Your task to perform on an android device: Open the phone app and click the voicemail tab. Image 0: 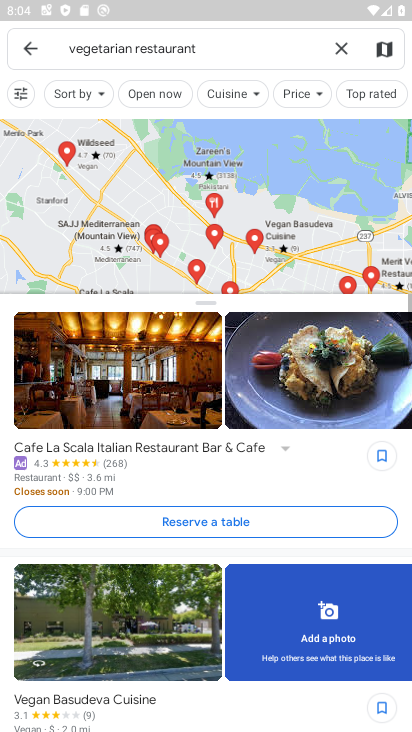
Step 0: press home button
Your task to perform on an android device: Open the phone app and click the voicemail tab. Image 1: 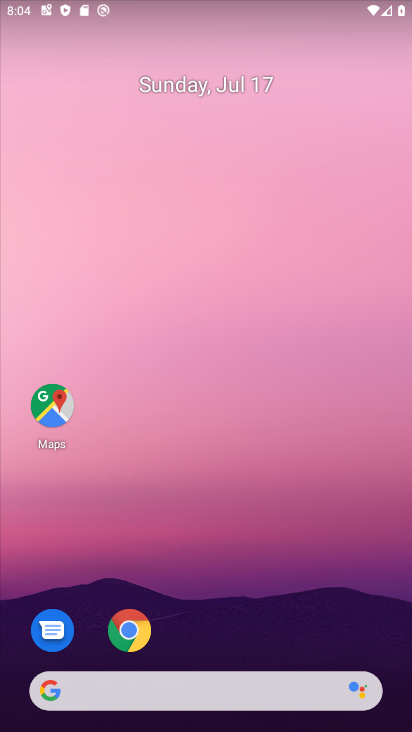
Step 1: drag from (219, 695) to (204, 3)
Your task to perform on an android device: Open the phone app and click the voicemail tab. Image 2: 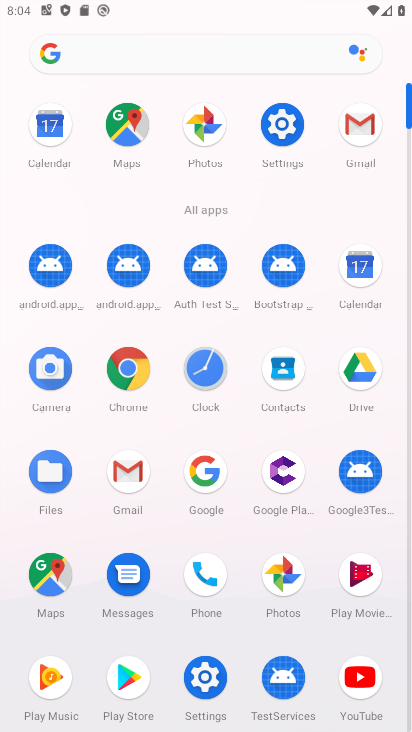
Step 2: click (185, 564)
Your task to perform on an android device: Open the phone app and click the voicemail tab. Image 3: 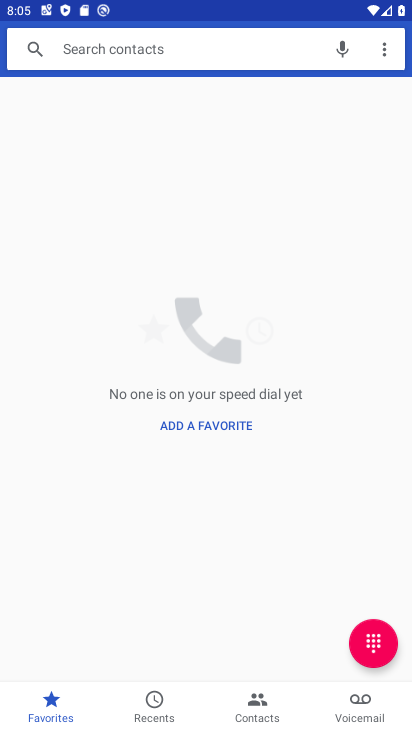
Step 3: click (362, 689)
Your task to perform on an android device: Open the phone app and click the voicemail tab. Image 4: 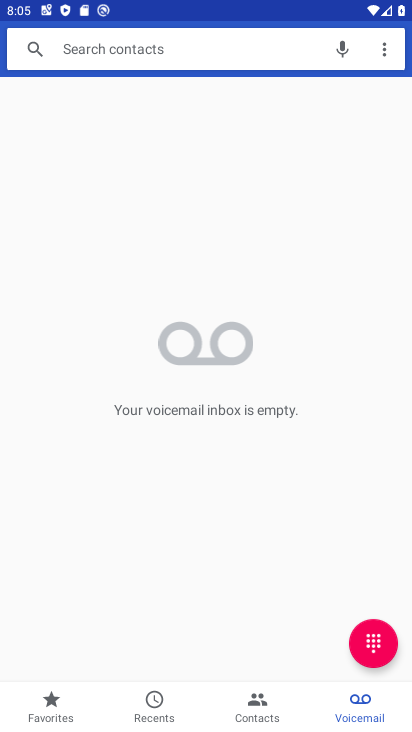
Step 4: task complete